Your task to perform on an android device: turn pop-ups on in chrome Image 0: 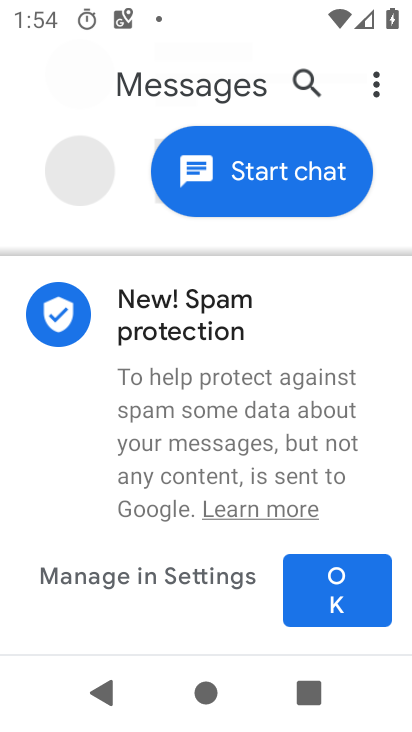
Step 0: press home button
Your task to perform on an android device: turn pop-ups on in chrome Image 1: 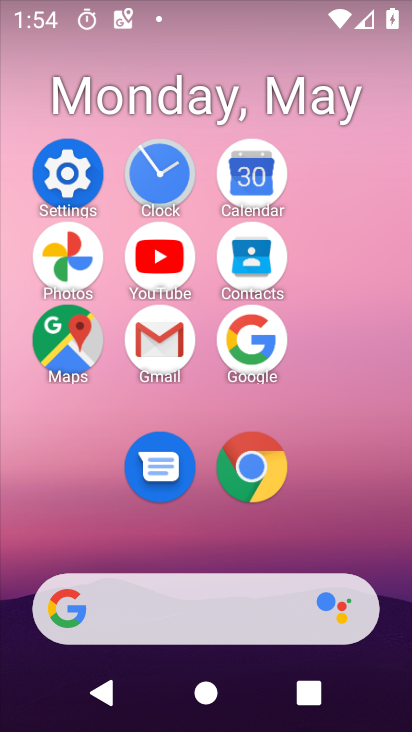
Step 1: click (253, 447)
Your task to perform on an android device: turn pop-ups on in chrome Image 2: 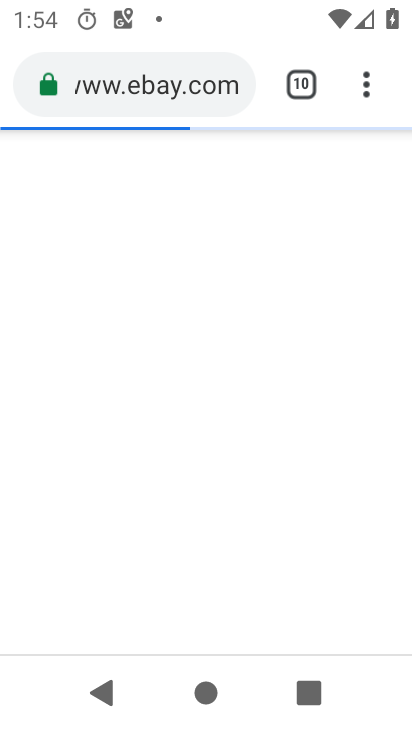
Step 2: click (365, 98)
Your task to perform on an android device: turn pop-ups on in chrome Image 3: 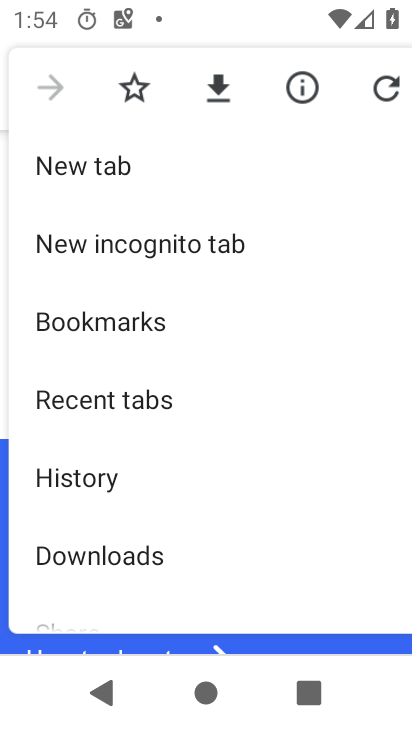
Step 3: drag from (249, 472) to (275, 170)
Your task to perform on an android device: turn pop-ups on in chrome Image 4: 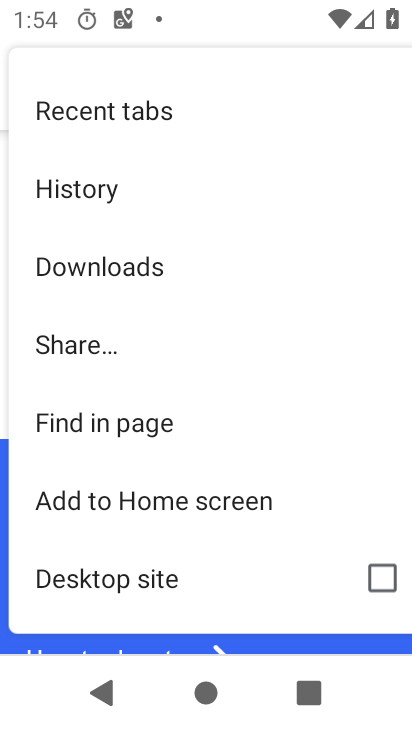
Step 4: drag from (166, 557) to (197, 189)
Your task to perform on an android device: turn pop-ups on in chrome Image 5: 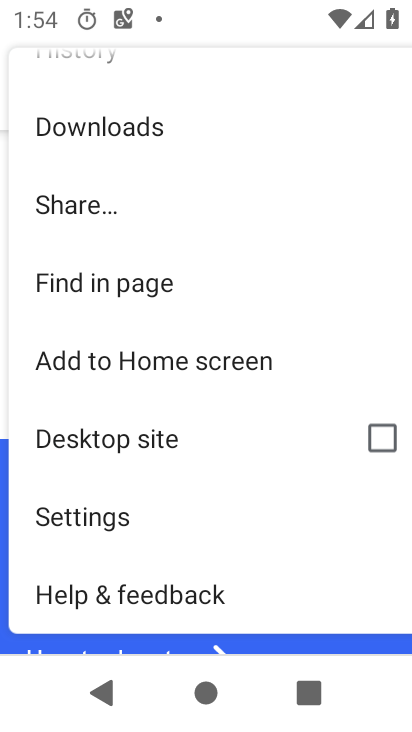
Step 5: click (110, 534)
Your task to perform on an android device: turn pop-ups on in chrome Image 6: 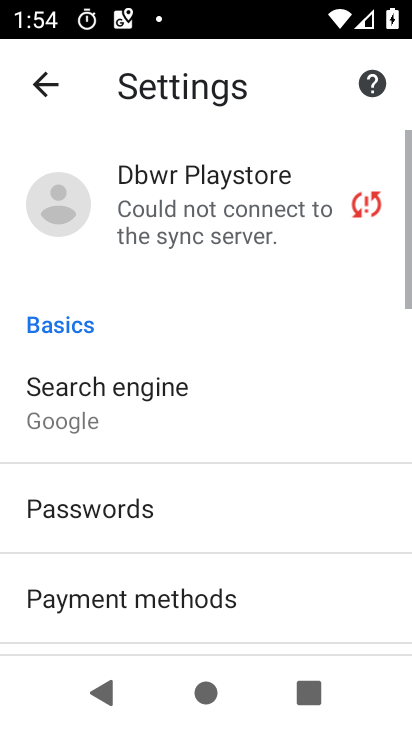
Step 6: drag from (109, 533) to (156, 128)
Your task to perform on an android device: turn pop-ups on in chrome Image 7: 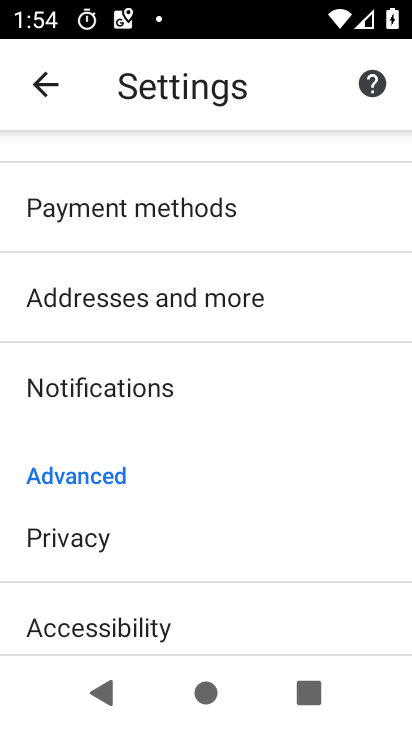
Step 7: drag from (179, 546) to (205, 202)
Your task to perform on an android device: turn pop-ups on in chrome Image 8: 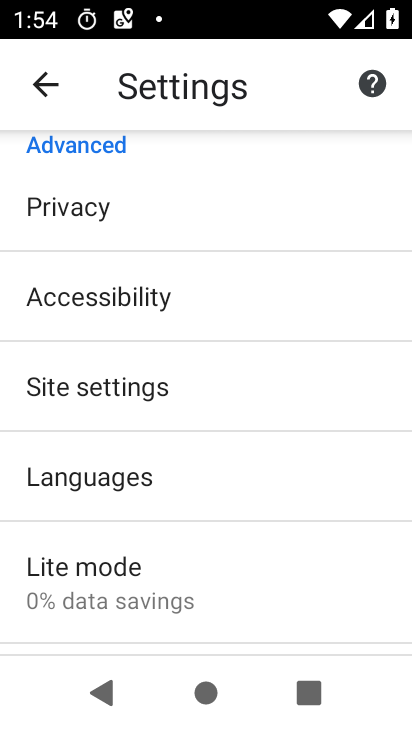
Step 8: click (189, 366)
Your task to perform on an android device: turn pop-ups on in chrome Image 9: 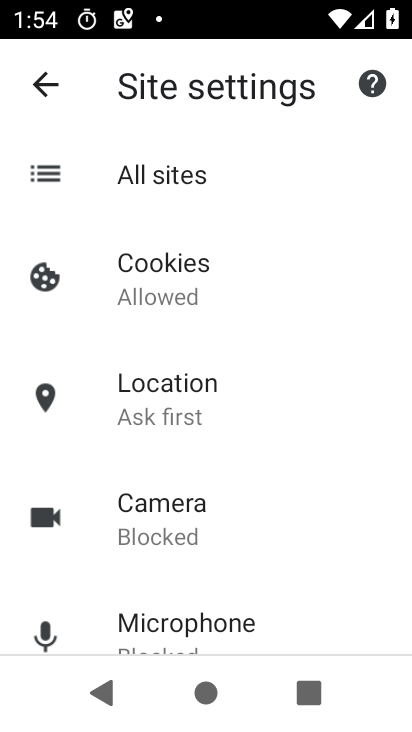
Step 9: drag from (275, 559) to (296, 119)
Your task to perform on an android device: turn pop-ups on in chrome Image 10: 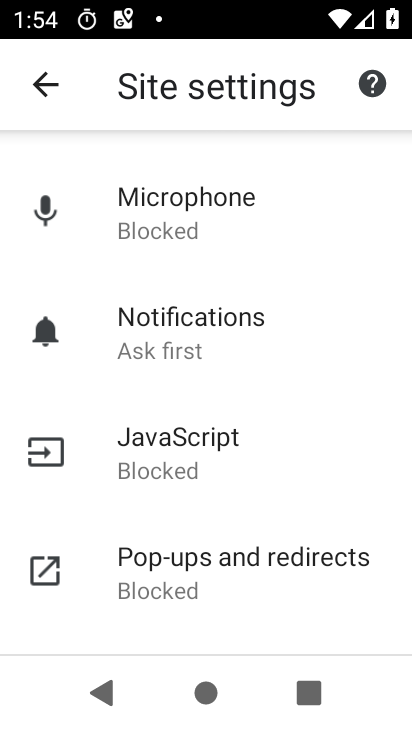
Step 10: drag from (256, 483) to (258, 196)
Your task to perform on an android device: turn pop-ups on in chrome Image 11: 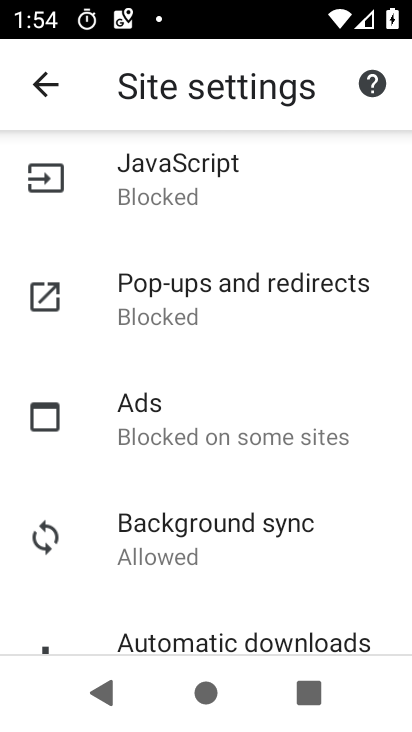
Step 11: click (243, 300)
Your task to perform on an android device: turn pop-ups on in chrome Image 12: 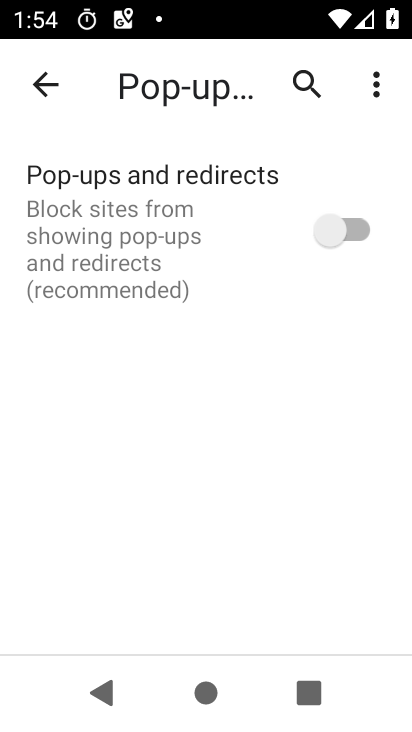
Step 12: click (350, 229)
Your task to perform on an android device: turn pop-ups on in chrome Image 13: 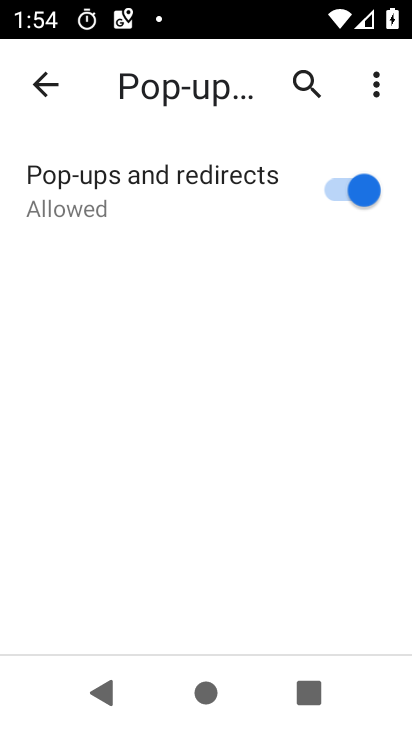
Step 13: task complete